Your task to perform on an android device: Check the news Image 0: 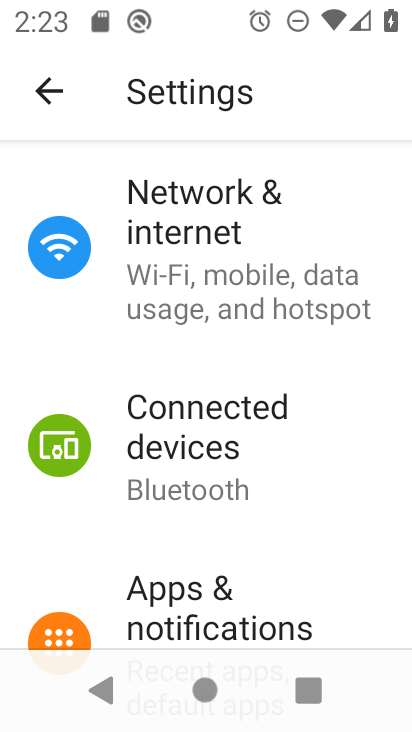
Step 0: press home button
Your task to perform on an android device: Check the news Image 1: 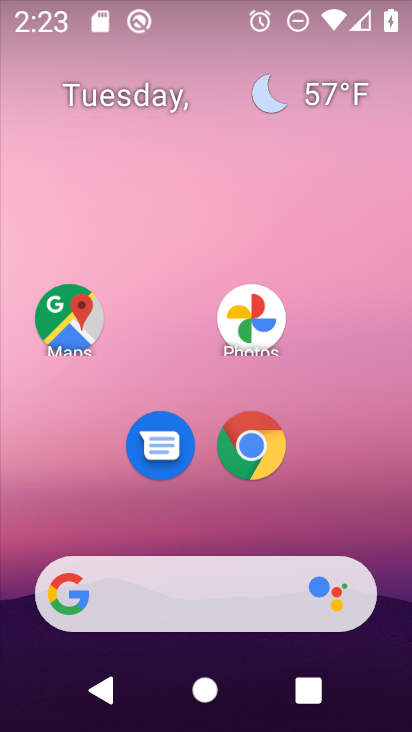
Step 1: task complete